Your task to perform on an android device: Open Wikipedia Image 0: 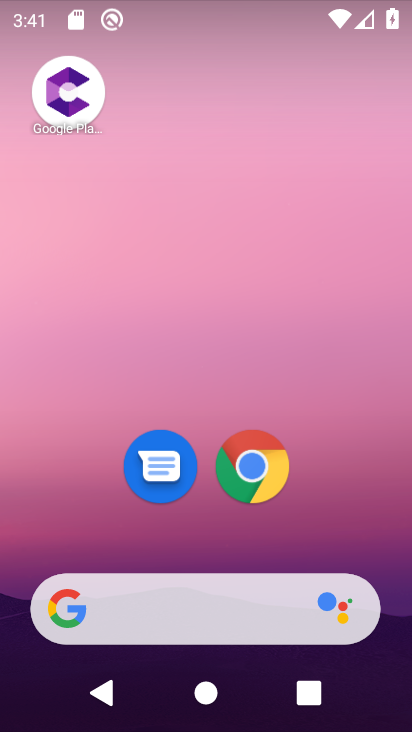
Step 0: drag from (303, 204) to (313, 88)
Your task to perform on an android device: Open Wikipedia Image 1: 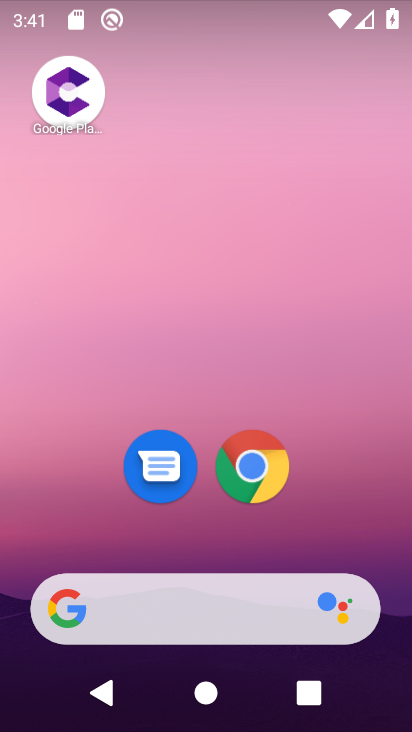
Step 1: click (255, 450)
Your task to perform on an android device: Open Wikipedia Image 2: 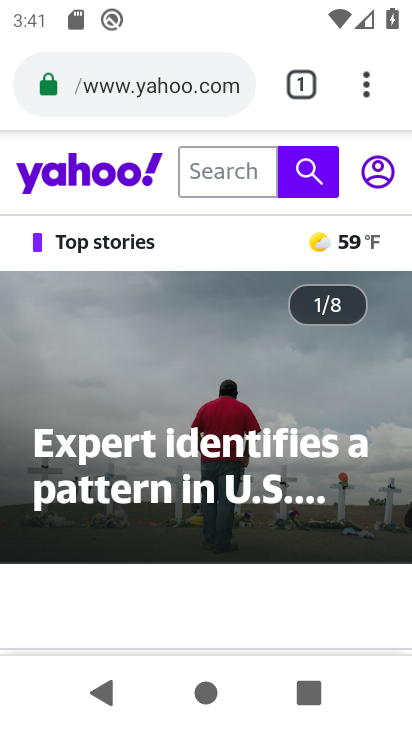
Step 2: click (302, 93)
Your task to perform on an android device: Open Wikipedia Image 3: 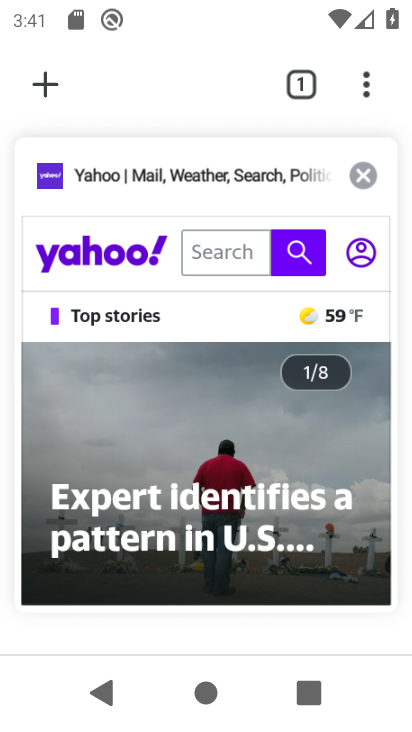
Step 3: click (47, 75)
Your task to perform on an android device: Open Wikipedia Image 4: 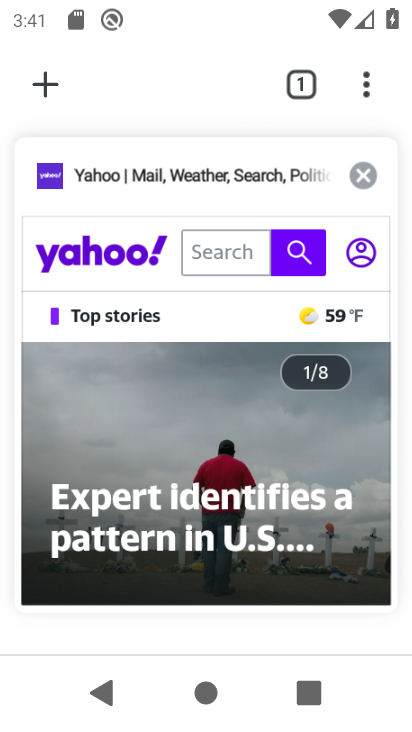
Step 4: click (60, 80)
Your task to perform on an android device: Open Wikipedia Image 5: 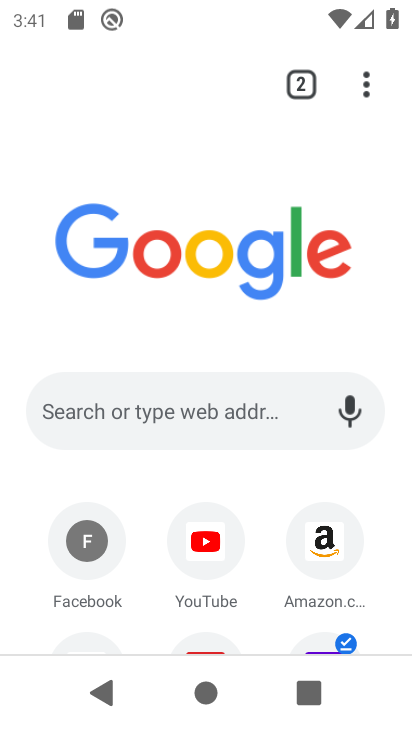
Step 5: drag from (169, 453) to (228, 78)
Your task to perform on an android device: Open Wikipedia Image 6: 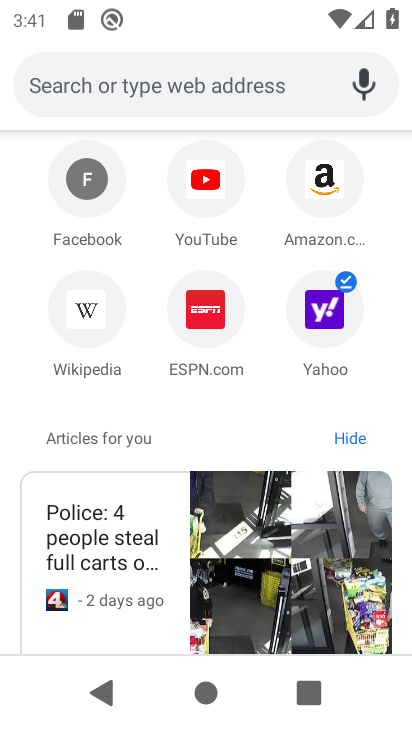
Step 6: click (95, 310)
Your task to perform on an android device: Open Wikipedia Image 7: 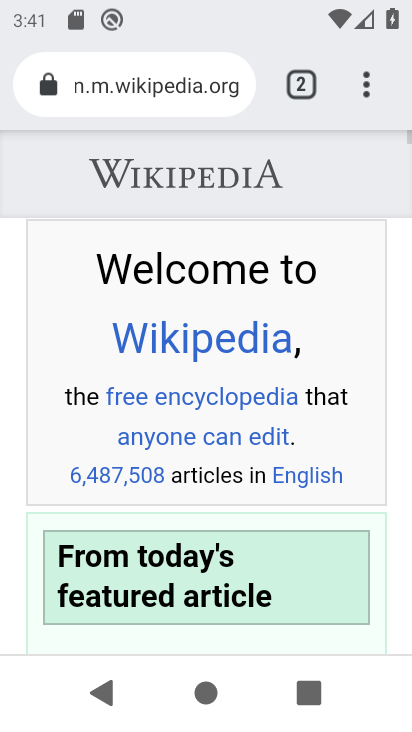
Step 7: task complete